Your task to perform on an android device: Open battery settings Image 0: 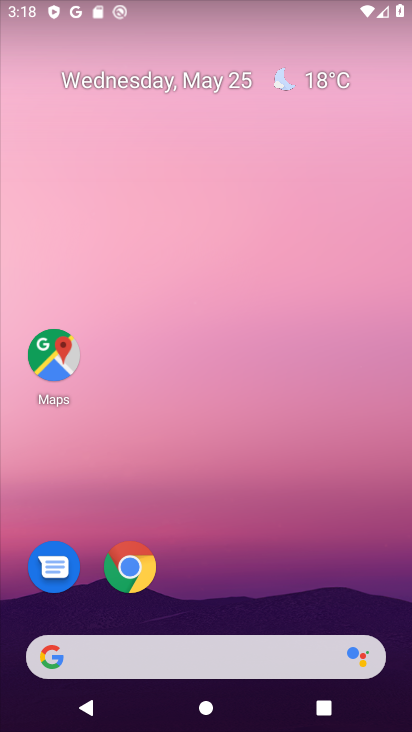
Step 0: drag from (352, 609) to (378, 209)
Your task to perform on an android device: Open battery settings Image 1: 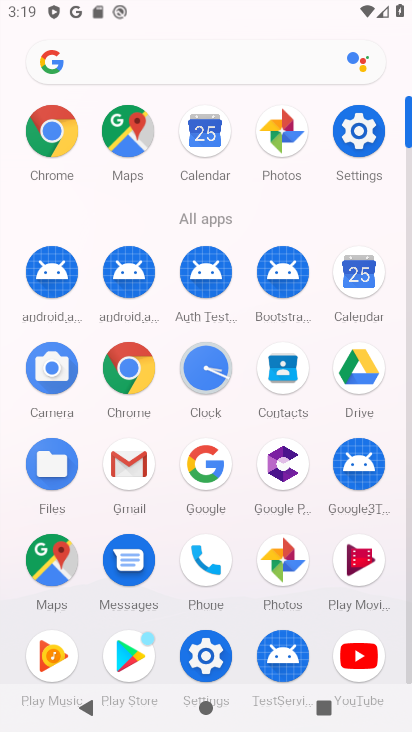
Step 1: click (375, 146)
Your task to perform on an android device: Open battery settings Image 2: 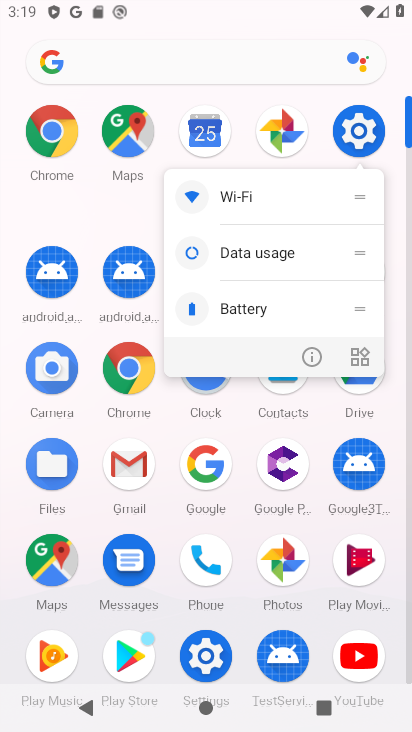
Step 2: click (375, 146)
Your task to perform on an android device: Open battery settings Image 3: 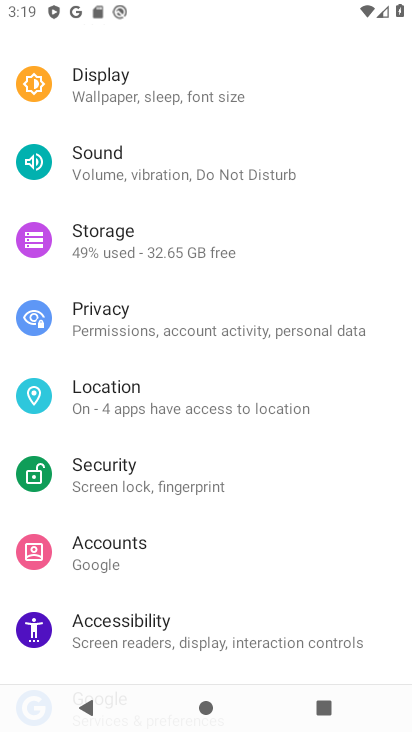
Step 3: drag from (356, 235) to (364, 358)
Your task to perform on an android device: Open battery settings Image 4: 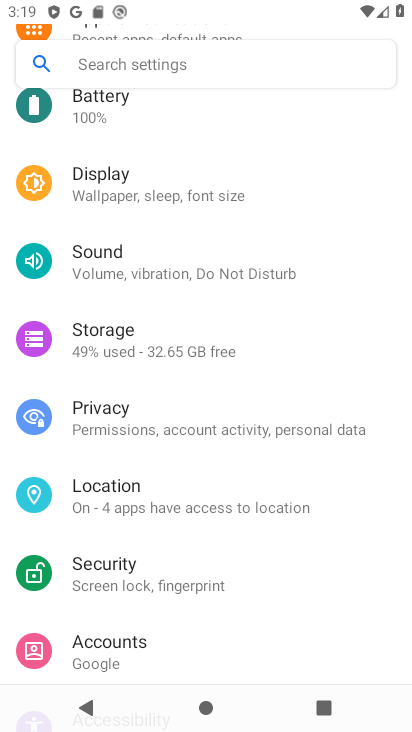
Step 4: drag from (373, 164) to (381, 290)
Your task to perform on an android device: Open battery settings Image 5: 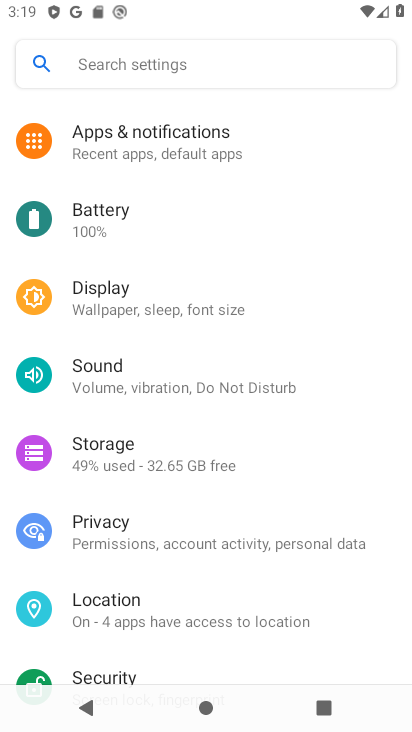
Step 5: drag from (361, 188) to (359, 335)
Your task to perform on an android device: Open battery settings Image 6: 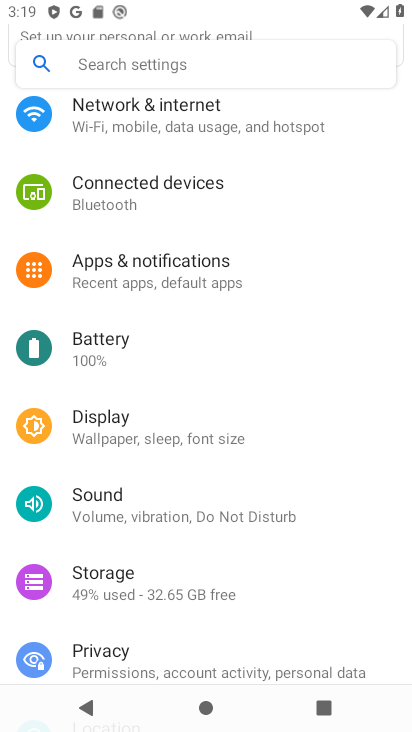
Step 6: drag from (355, 190) to (340, 293)
Your task to perform on an android device: Open battery settings Image 7: 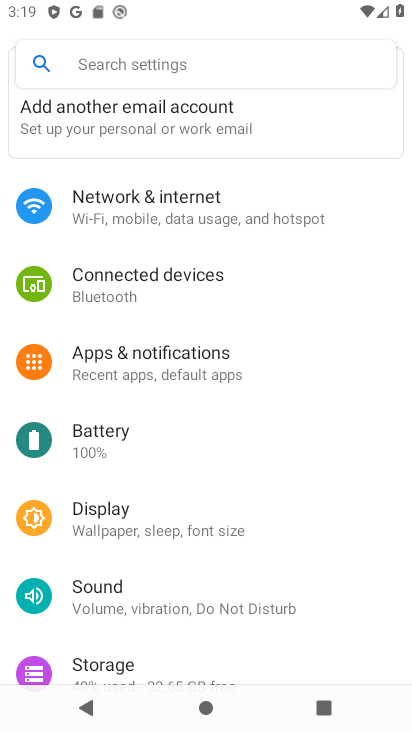
Step 7: drag from (344, 211) to (339, 325)
Your task to perform on an android device: Open battery settings Image 8: 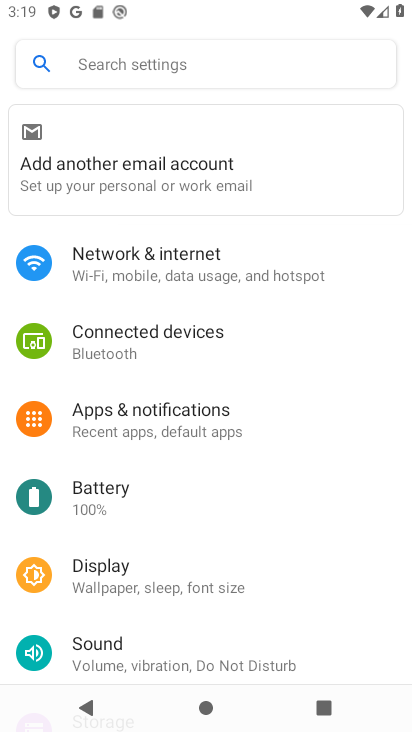
Step 8: drag from (345, 391) to (354, 274)
Your task to perform on an android device: Open battery settings Image 9: 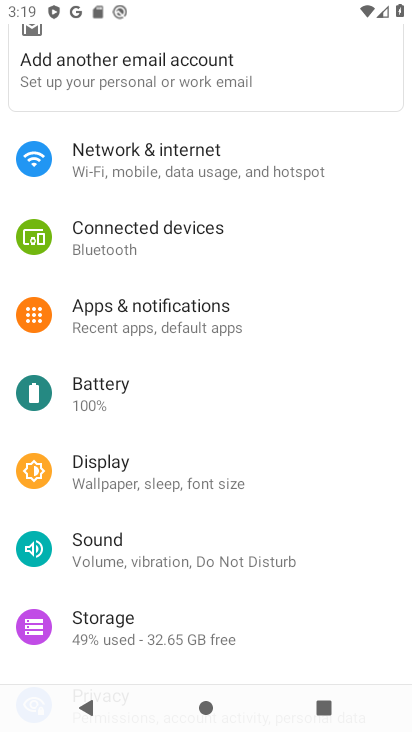
Step 9: drag from (319, 389) to (328, 257)
Your task to perform on an android device: Open battery settings Image 10: 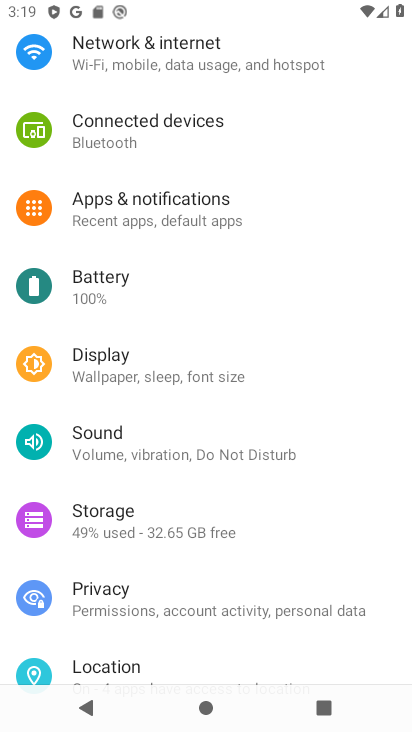
Step 10: click (241, 293)
Your task to perform on an android device: Open battery settings Image 11: 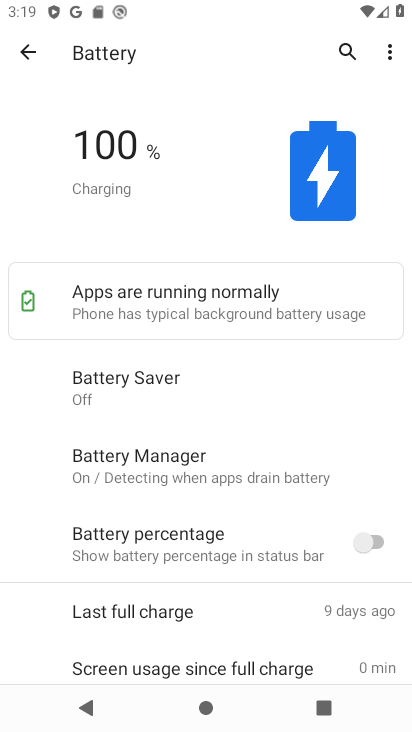
Step 11: task complete